Your task to perform on an android device: toggle translation in the chrome app Image 0: 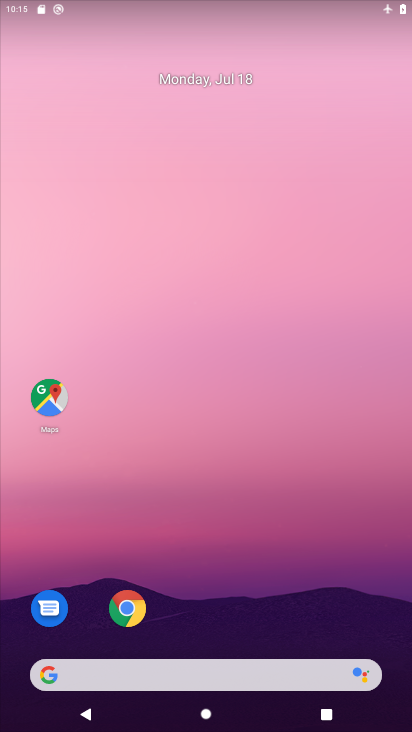
Step 0: drag from (169, 663) to (394, 24)
Your task to perform on an android device: toggle translation in the chrome app Image 1: 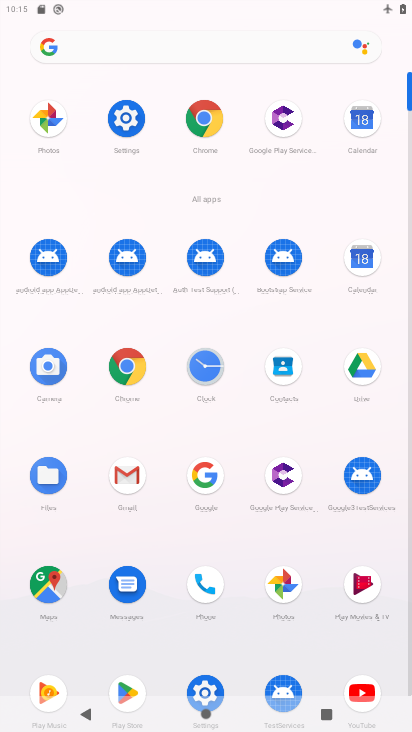
Step 1: click (134, 376)
Your task to perform on an android device: toggle translation in the chrome app Image 2: 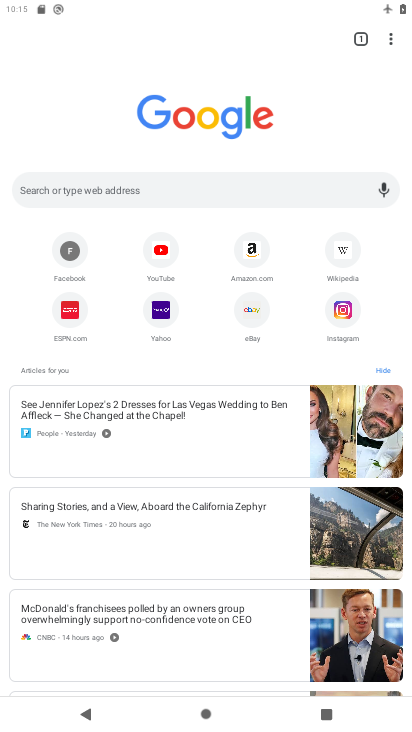
Step 2: click (386, 41)
Your task to perform on an android device: toggle translation in the chrome app Image 3: 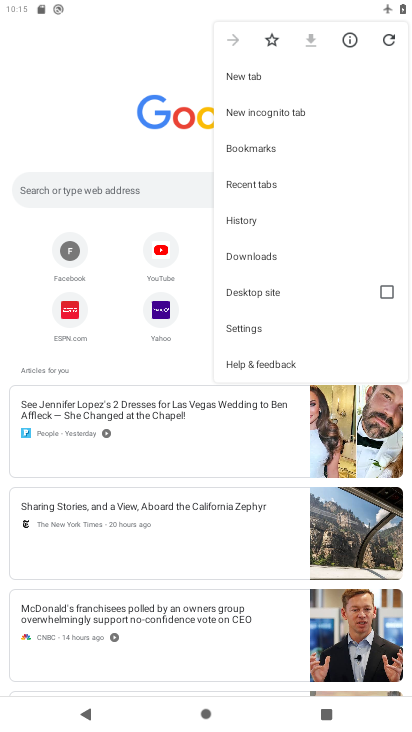
Step 3: click (235, 332)
Your task to perform on an android device: toggle translation in the chrome app Image 4: 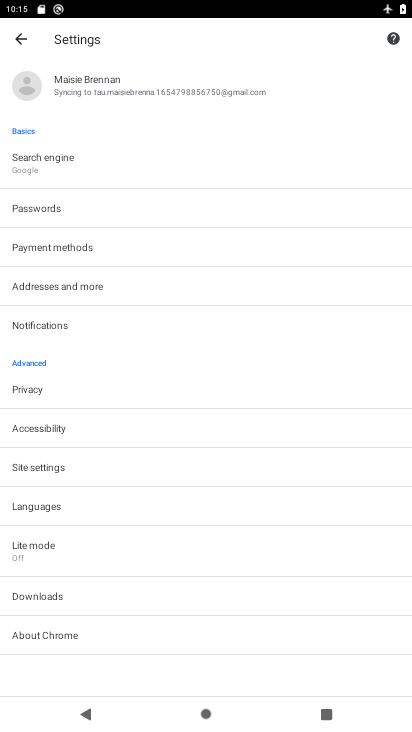
Step 4: click (71, 502)
Your task to perform on an android device: toggle translation in the chrome app Image 5: 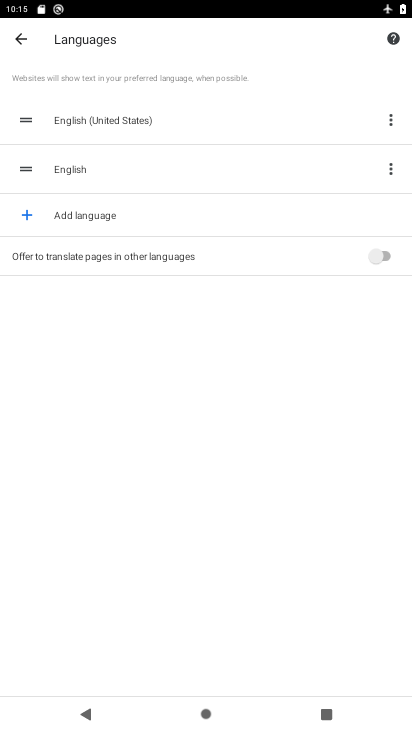
Step 5: click (382, 248)
Your task to perform on an android device: toggle translation in the chrome app Image 6: 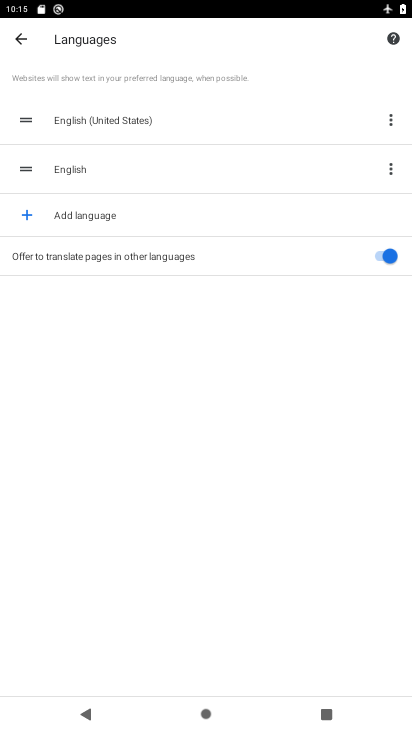
Step 6: task complete